Your task to perform on an android device: Open the stopwatch Image 0: 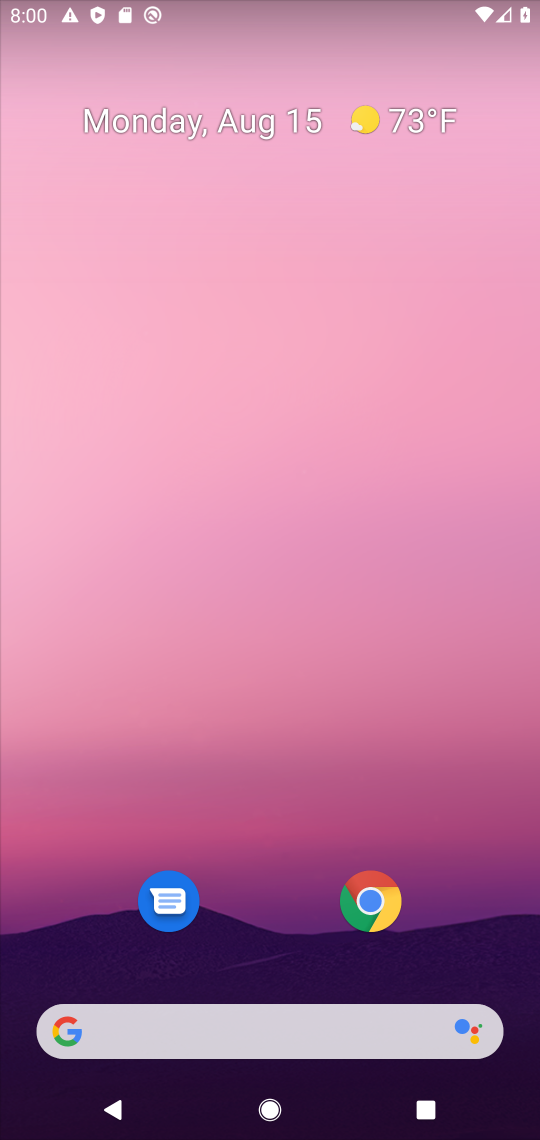
Step 0: drag from (246, 939) to (291, 48)
Your task to perform on an android device: Open the stopwatch Image 1: 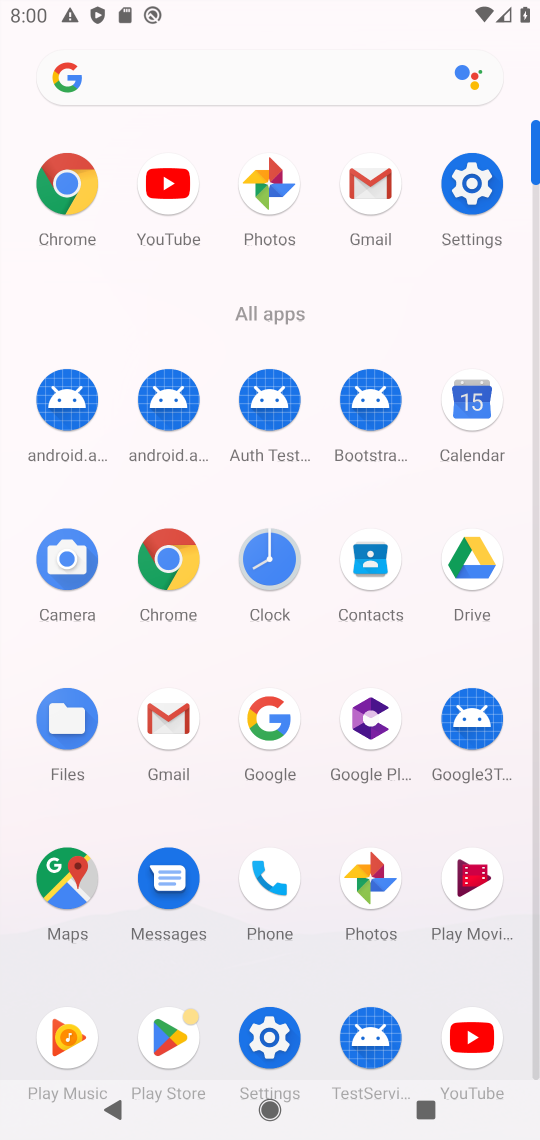
Step 1: click (267, 577)
Your task to perform on an android device: Open the stopwatch Image 2: 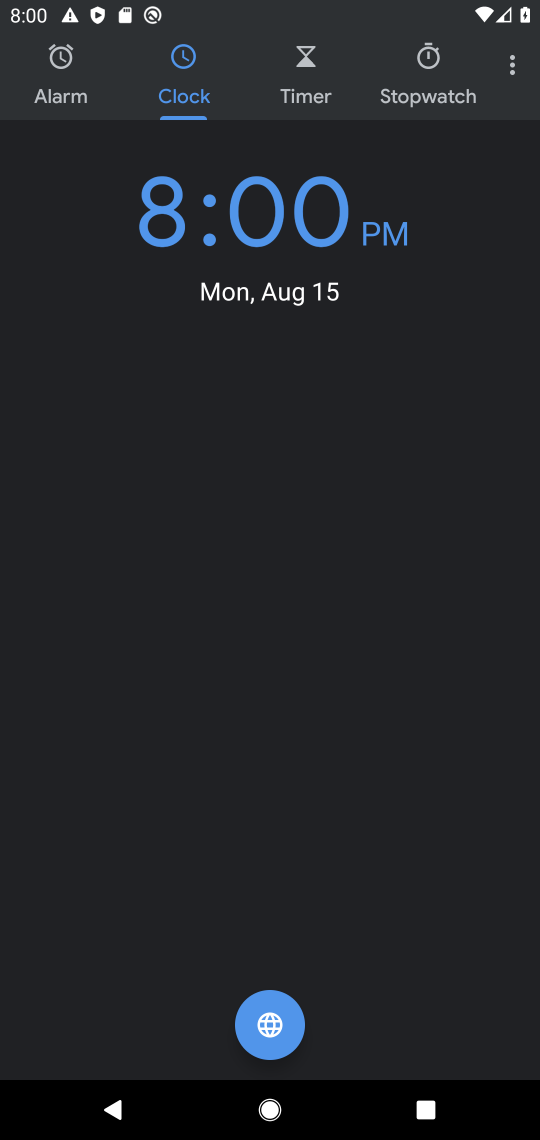
Step 2: click (420, 97)
Your task to perform on an android device: Open the stopwatch Image 3: 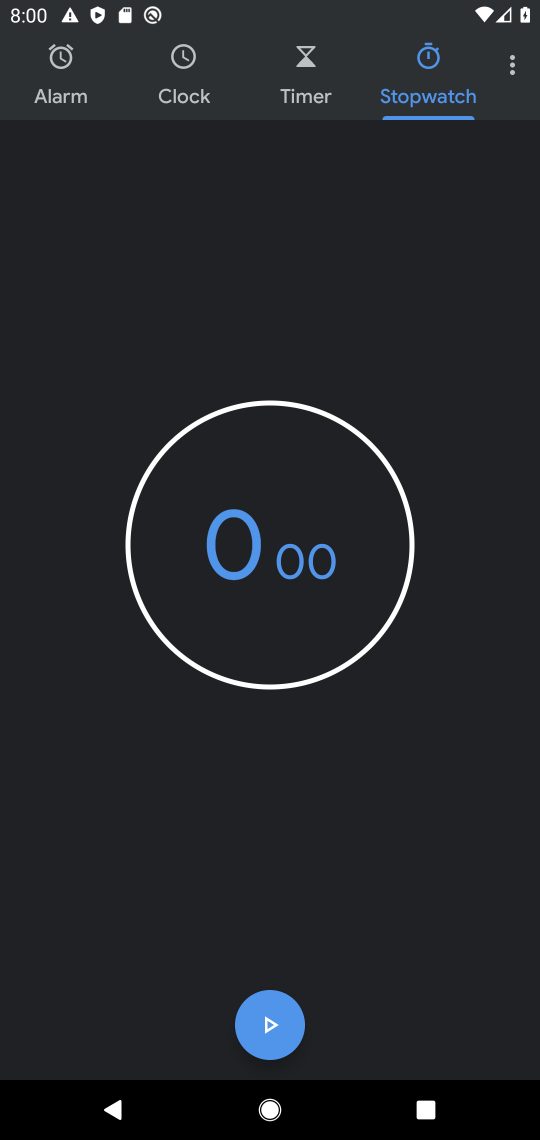
Step 3: click (273, 1011)
Your task to perform on an android device: Open the stopwatch Image 4: 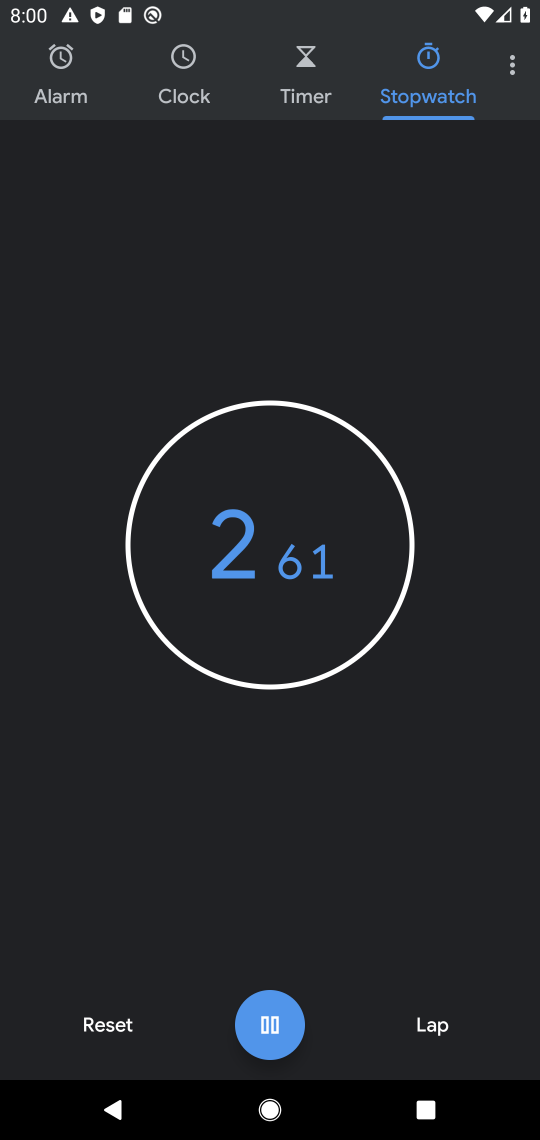
Step 4: task complete